Your task to perform on an android device: add a contact Image 0: 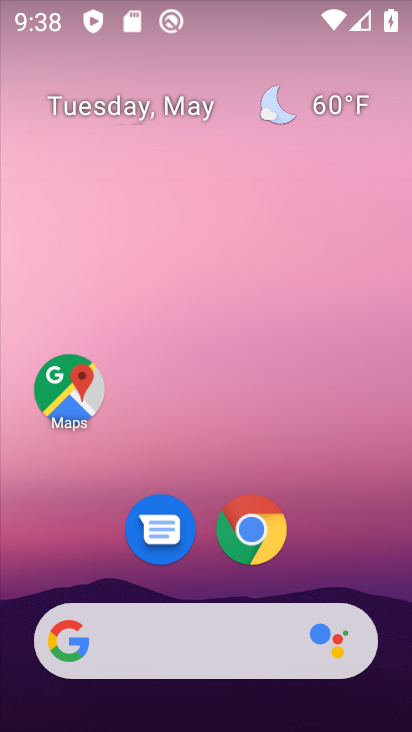
Step 0: drag from (155, 594) to (155, 152)
Your task to perform on an android device: add a contact Image 1: 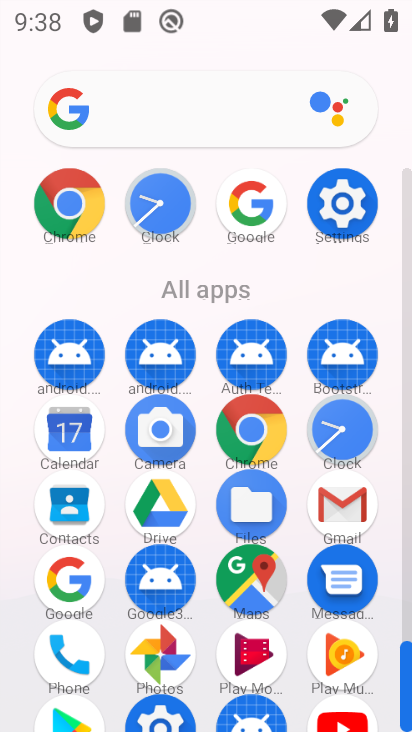
Step 1: click (51, 516)
Your task to perform on an android device: add a contact Image 2: 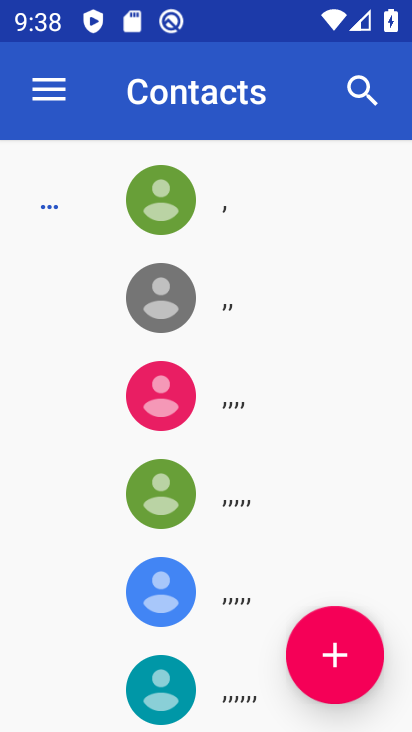
Step 2: click (359, 670)
Your task to perform on an android device: add a contact Image 3: 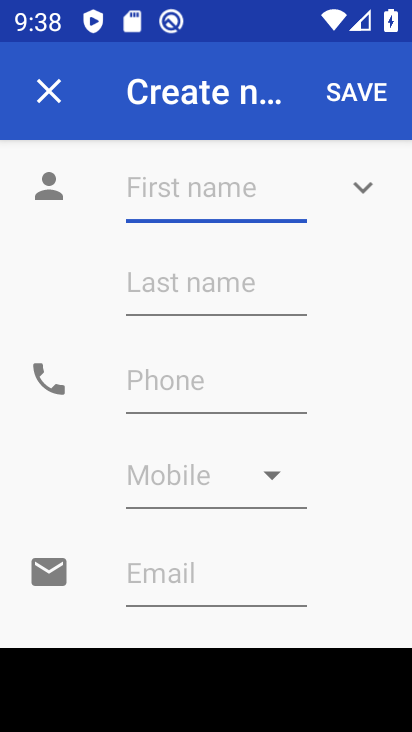
Step 3: type "lima"
Your task to perform on an android device: add a contact Image 4: 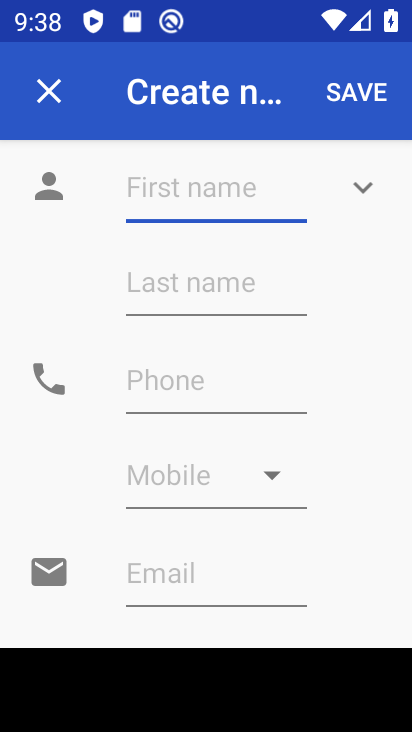
Step 4: click (171, 275)
Your task to perform on an android device: add a contact Image 5: 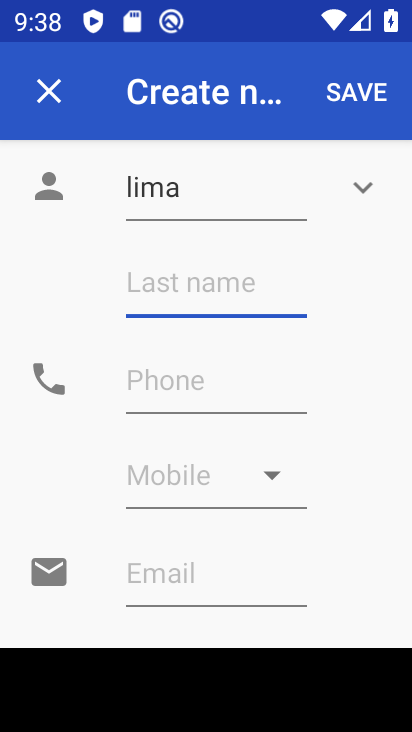
Step 5: type "laka"
Your task to perform on an android device: add a contact Image 6: 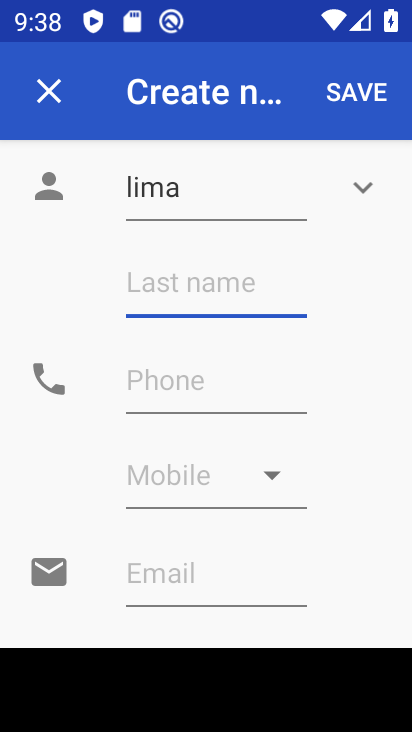
Step 6: click (196, 397)
Your task to perform on an android device: add a contact Image 7: 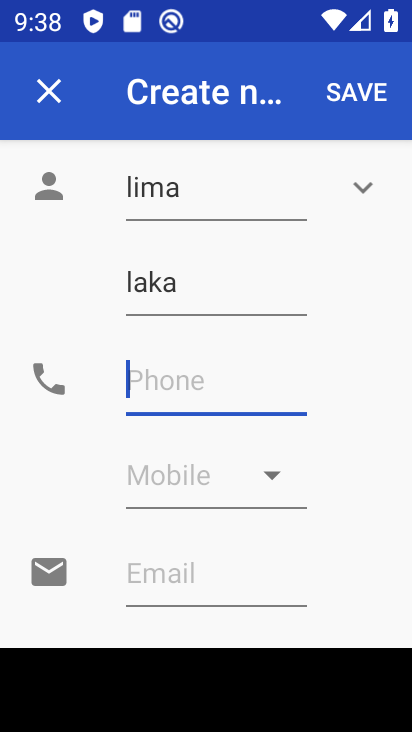
Step 7: type "7876757473"
Your task to perform on an android device: add a contact Image 8: 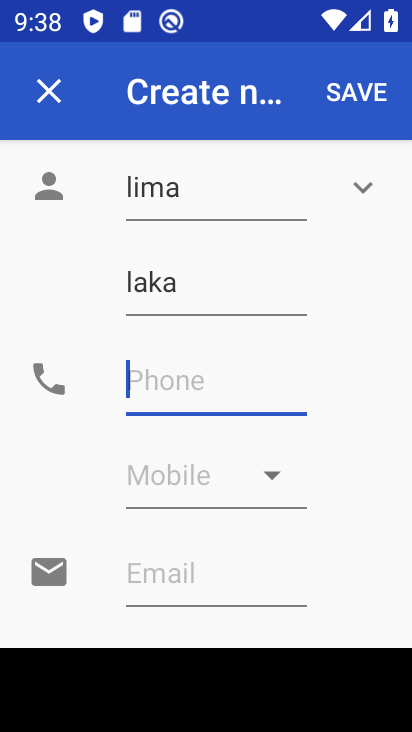
Step 8: click (194, 590)
Your task to perform on an android device: add a contact Image 9: 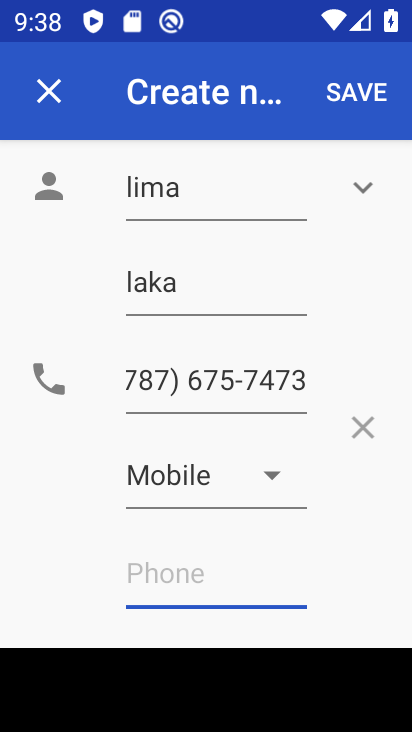
Step 9: drag from (234, 590) to (224, 494)
Your task to perform on an android device: add a contact Image 10: 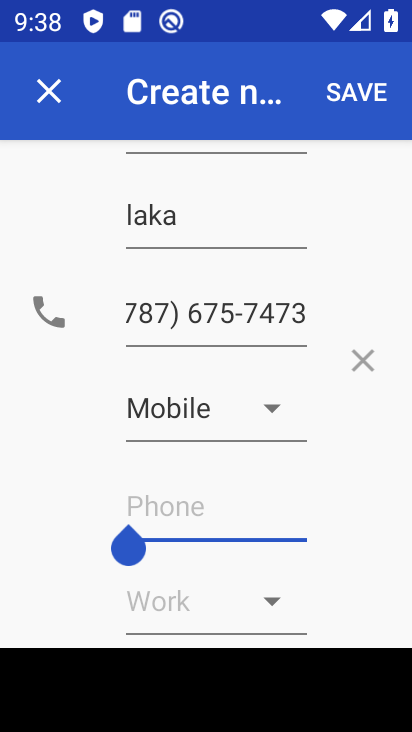
Step 10: drag from (280, 589) to (272, 431)
Your task to perform on an android device: add a contact Image 11: 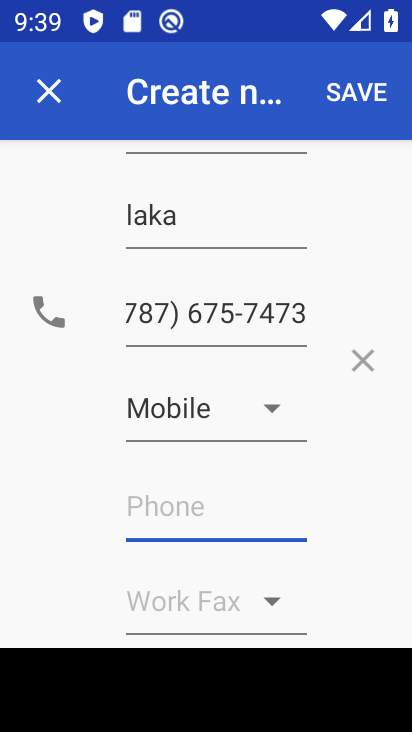
Step 11: click (262, 606)
Your task to perform on an android device: add a contact Image 12: 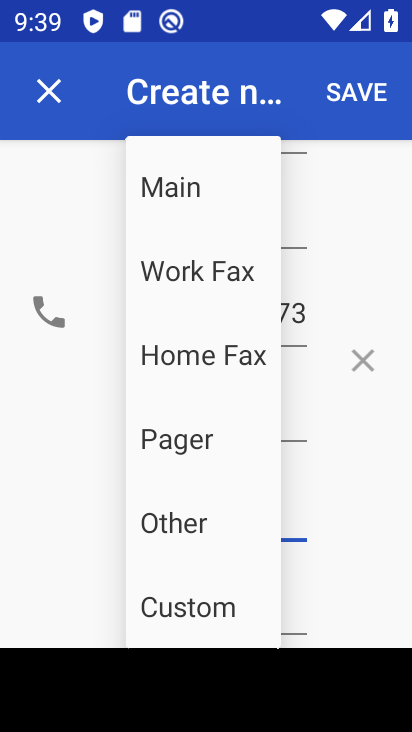
Step 12: click (169, 518)
Your task to perform on an android device: add a contact Image 13: 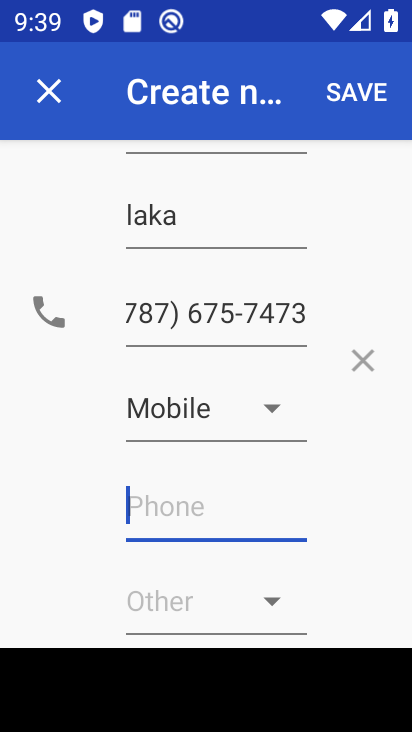
Step 13: click (349, 95)
Your task to perform on an android device: add a contact Image 14: 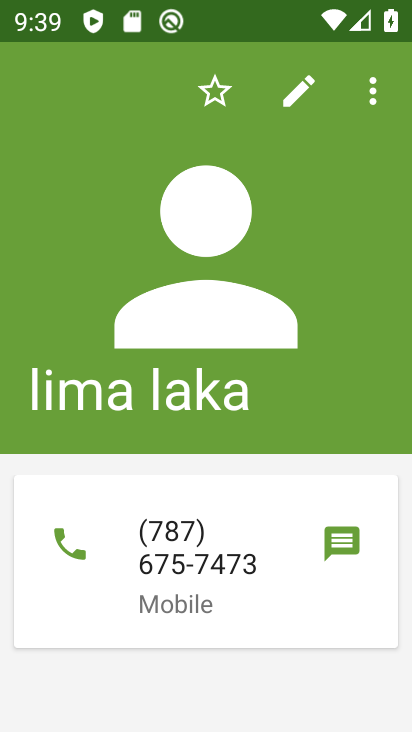
Step 14: task complete